Your task to perform on an android device: Go to Google maps Image 0: 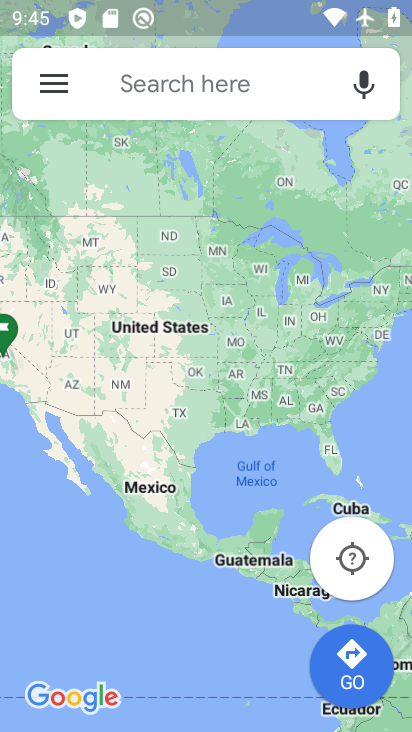
Step 0: task complete